Your task to perform on an android device: set an alarm Image 0: 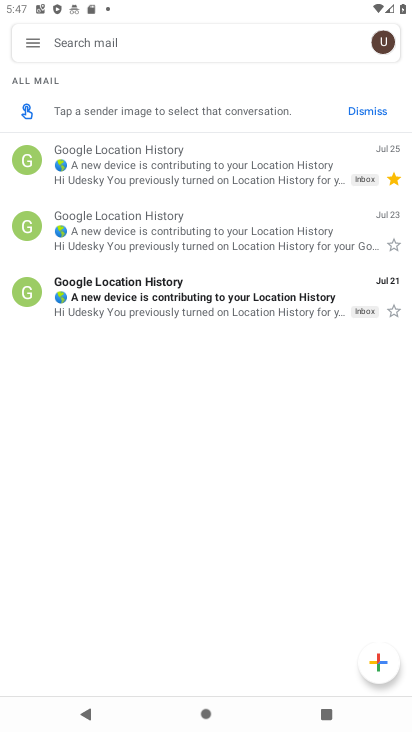
Step 0: press home button
Your task to perform on an android device: set an alarm Image 1: 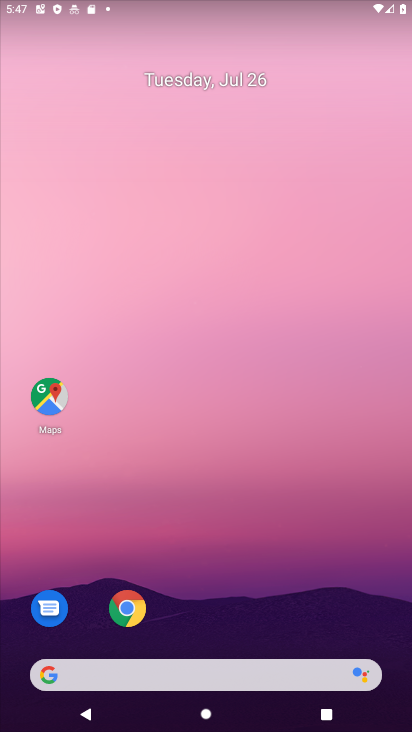
Step 1: drag from (276, 634) to (145, 0)
Your task to perform on an android device: set an alarm Image 2: 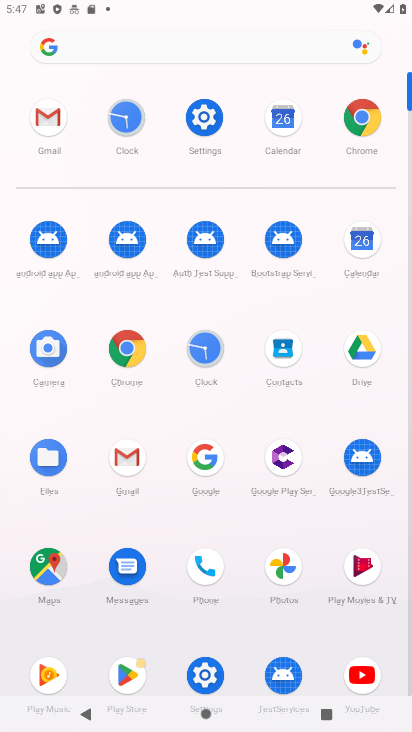
Step 2: click (126, 119)
Your task to perform on an android device: set an alarm Image 3: 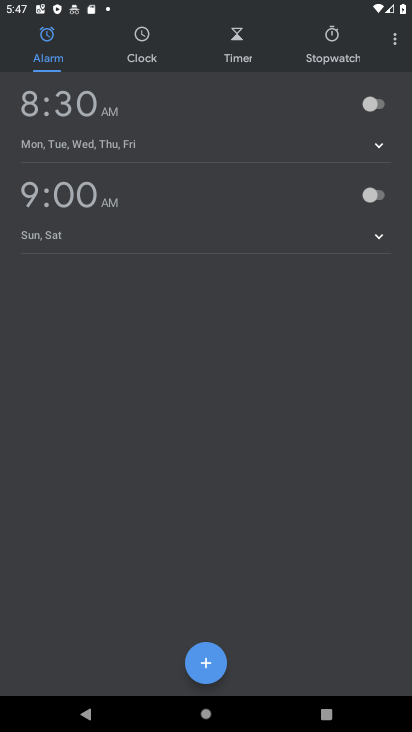
Step 3: click (368, 115)
Your task to perform on an android device: set an alarm Image 4: 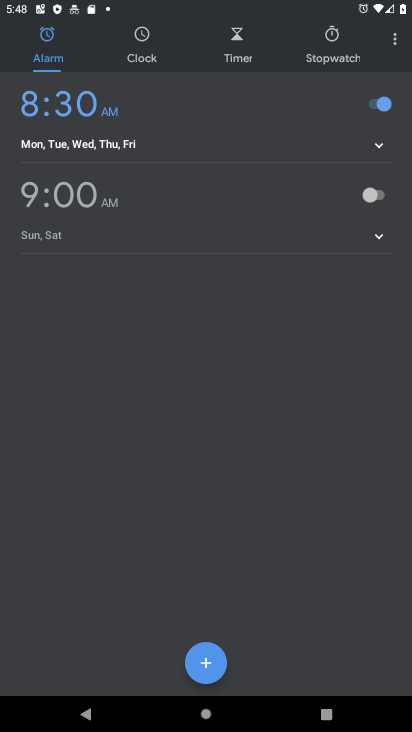
Step 4: task complete